Your task to perform on an android device: show emergency info Image 0: 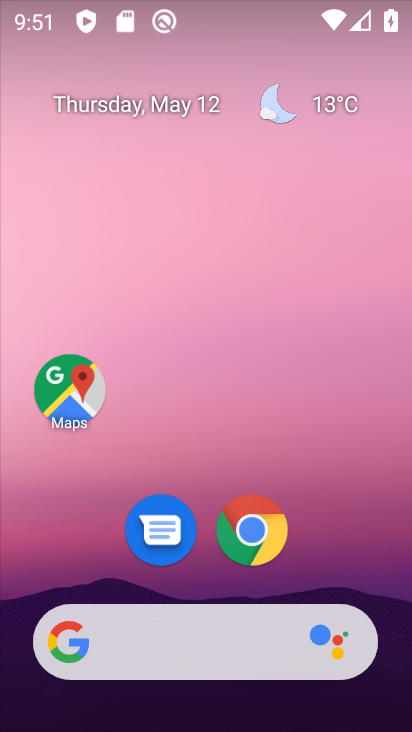
Step 0: drag from (347, 555) to (351, 149)
Your task to perform on an android device: show emergency info Image 1: 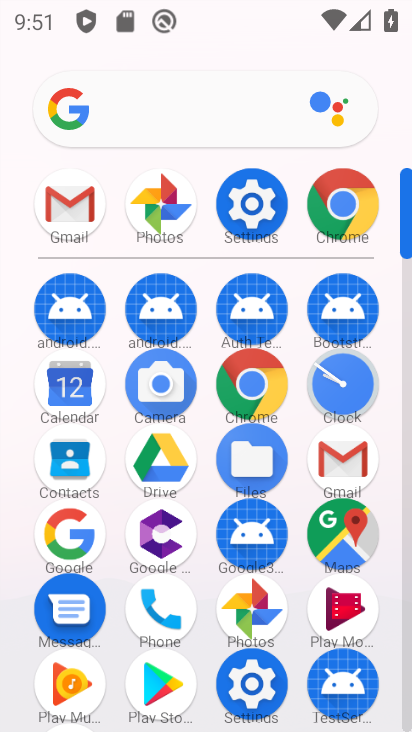
Step 1: click (245, 199)
Your task to perform on an android device: show emergency info Image 2: 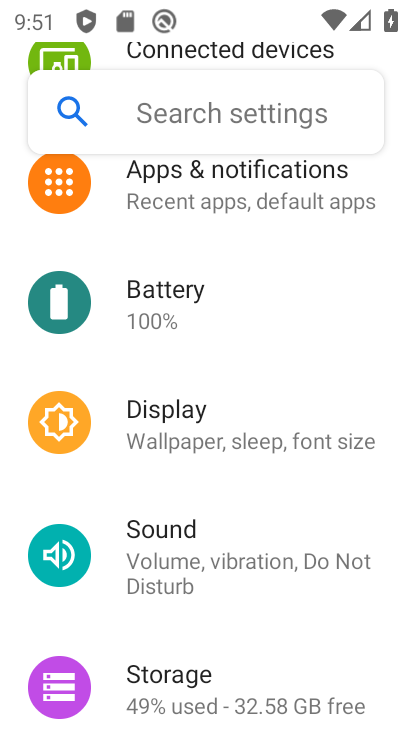
Step 2: drag from (263, 217) to (192, 627)
Your task to perform on an android device: show emergency info Image 3: 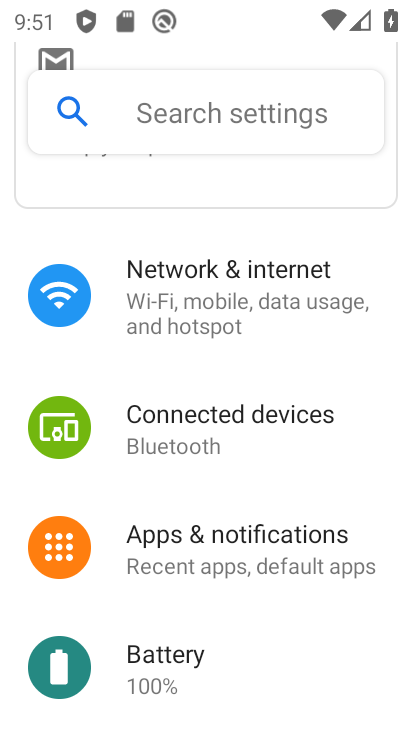
Step 3: drag from (221, 622) to (278, 213)
Your task to perform on an android device: show emergency info Image 4: 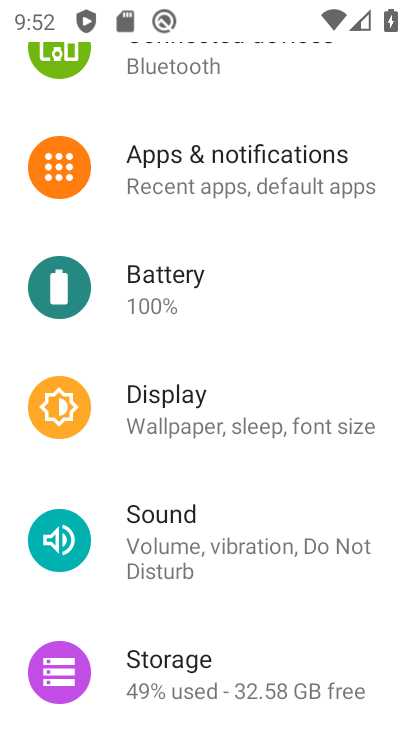
Step 4: drag from (267, 610) to (326, 256)
Your task to perform on an android device: show emergency info Image 5: 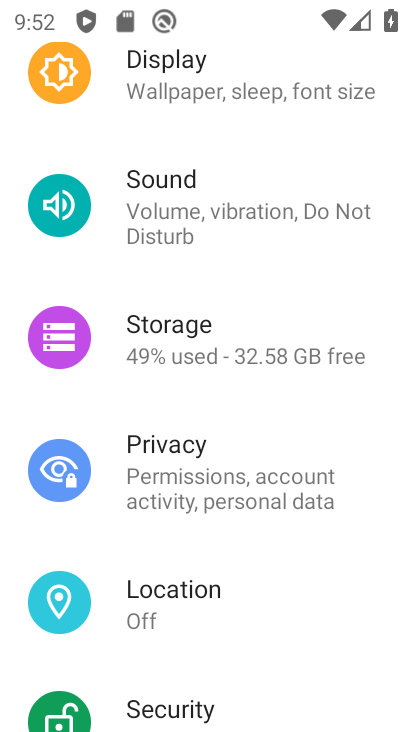
Step 5: drag from (313, 142) to (203, 718)
Your task to perform on an android device: show emergency info Image 6: 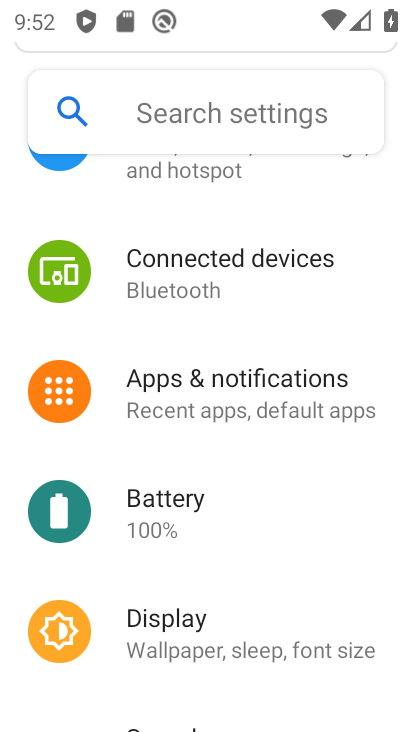
Step 6: drag from (287, 277) to (281, 683)
Your task to perform on an android device: show emergency info Image 7: 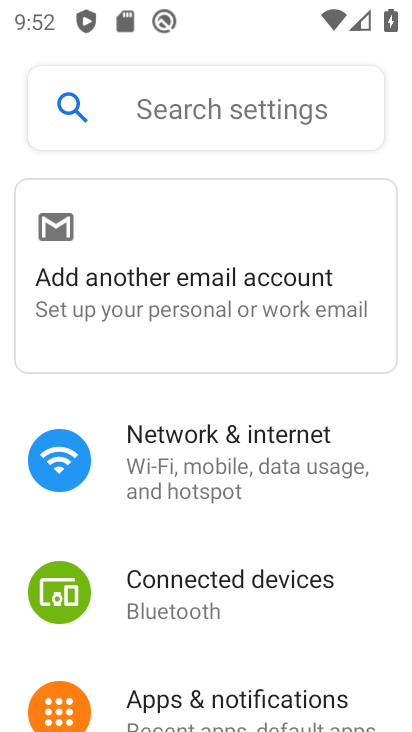
Step 7: drag from (298, 617) to (302, 95)
Your task to perform on an android device: show emergency info Image 8: 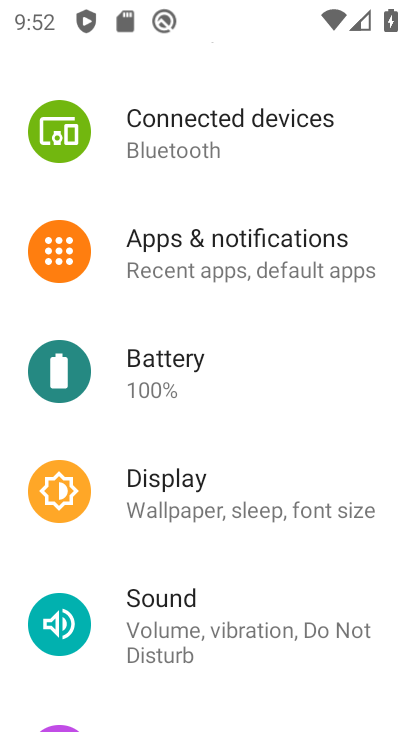
Step 8: drag from (213, 725) to (327, 148)
Your task to perform on an android device: show emergency info Image 9: 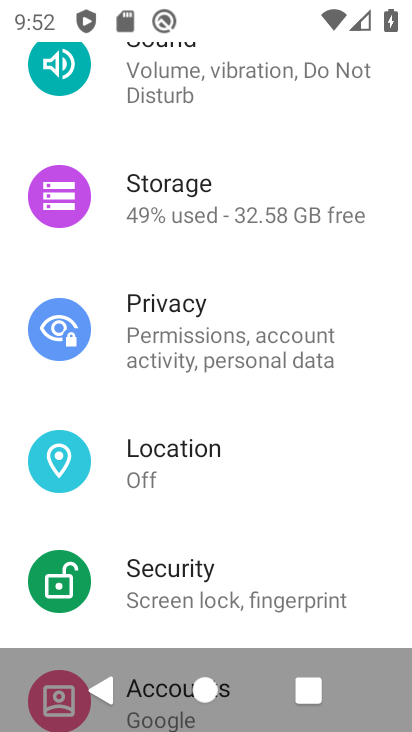
Step 9: drag from (260, 554) to (323, 142)
Your task to perform on an android device: show emergency info Image 10: 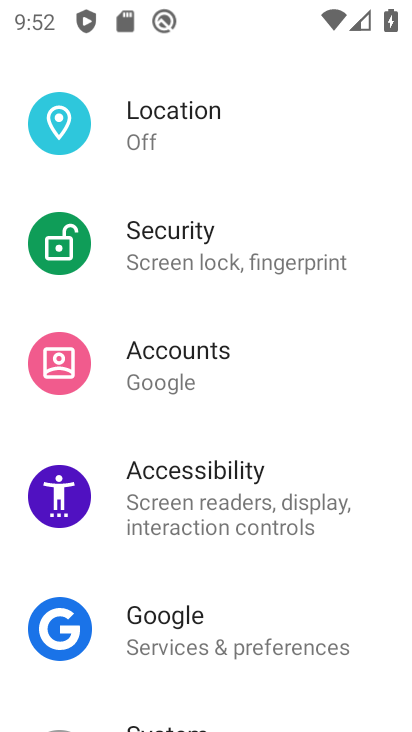
Step 10: drag from (210, 710) to (285, 219)
Your task to perform on an android device: show emergency info Image 11: 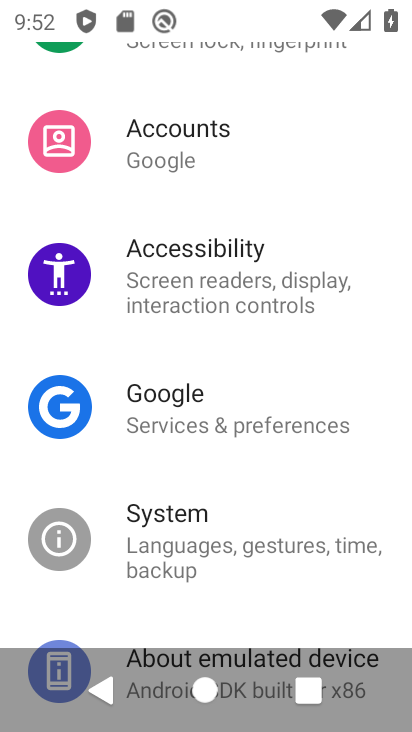
Step 11: drag from (242, 562) to (323, 104)
Your task to perform on an android device: show emergency info Image 12: 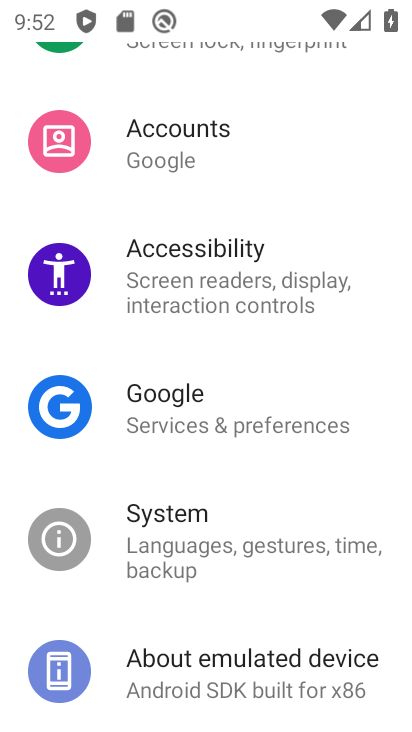
Step 12: click (290, 675)
Your task to perform on an android device: show emergency info Image 13: 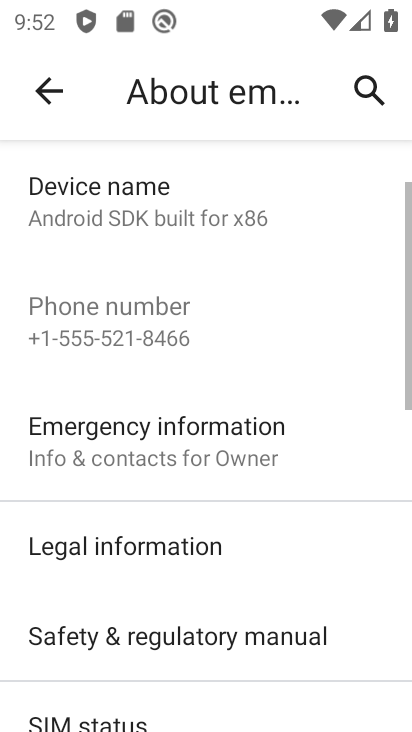
Step 13: drag from (321, 559) to (350, 177)
Your task to perform on an android device: show emergency info Image 14: 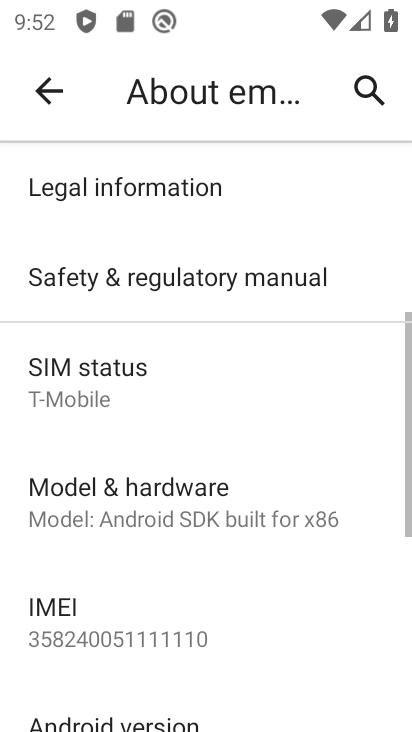
Step 14: drag from (194, 602) to (243, 126)
Your task to perform on an android device: show emergency info Image 15: 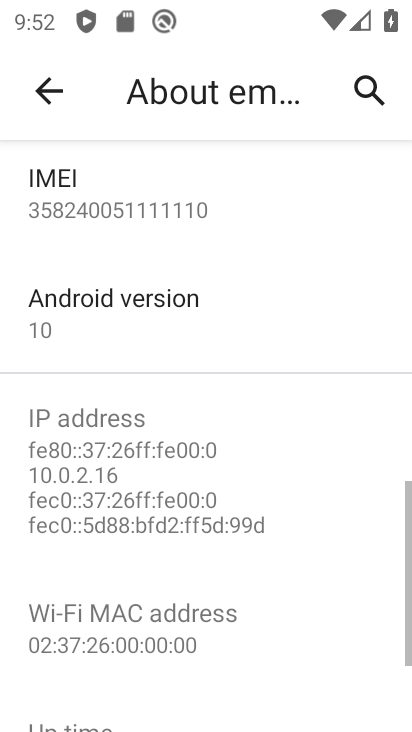
Step 15: drag from (228, 658) to (296, 167)
Your task to perform on an android device: show emergency info Image 16: 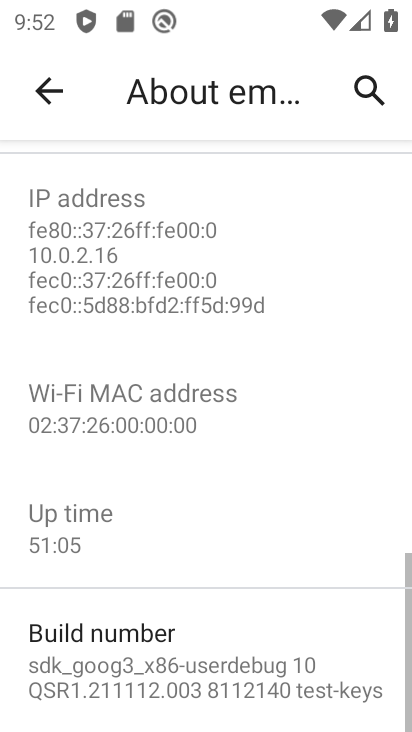
Step 16: drag from (351, 295) to (326, 717)
Your task to perform on an android device: show emergency info Image 17: 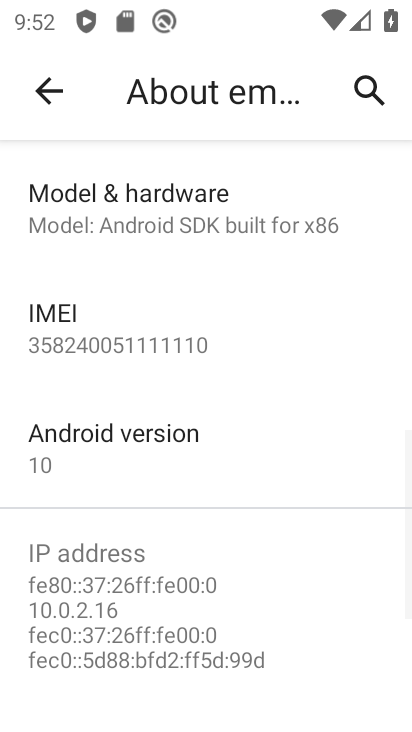
Step 17: drag from (323, 244) to (234, 680)
Your task to perform on an android device: show emergency info Image 18: 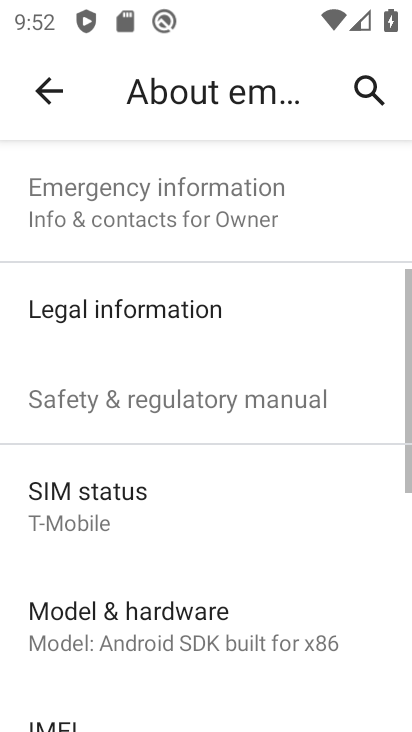
Step 18: drag from (288, 179) to (242, 690)
Your task to perform on an android device: show emergency info Image 19: 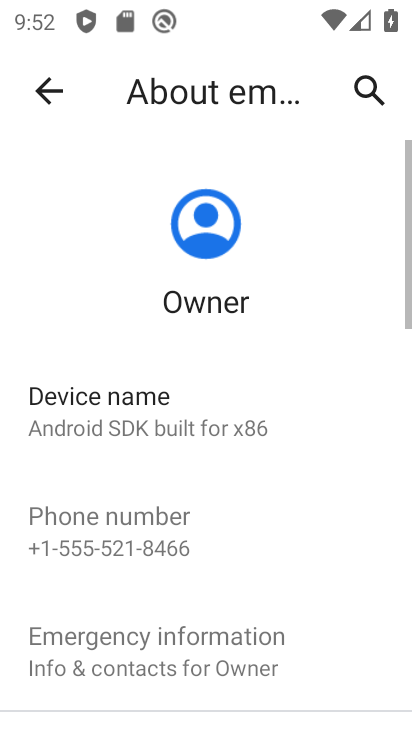
Step 19: drag from (355, 565) to (361, 393)
Your task to perform on an android device: show emergency info Image 20: 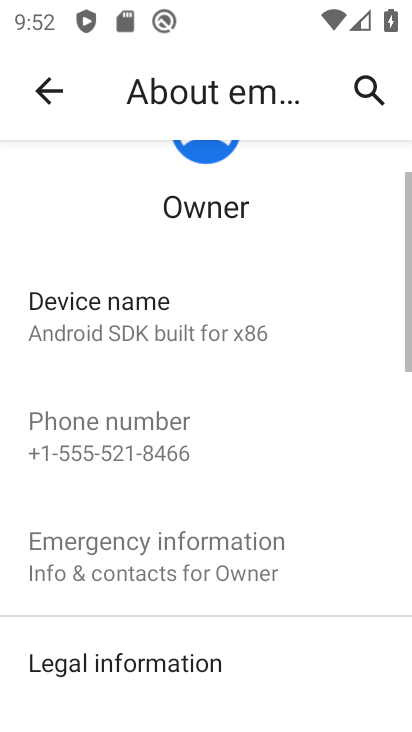
Step 20: click (302, 538)
Your task to perform on an android device: show emergency info Image 21: 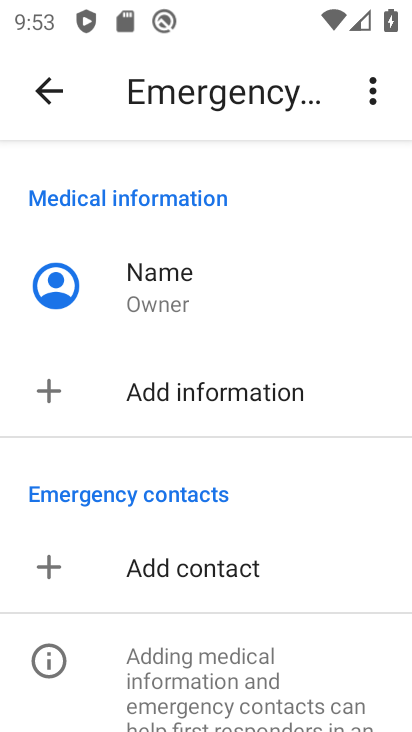
Step 21: task complete